Your task to perform on an android device: add a contact in the contacts app Image 0: 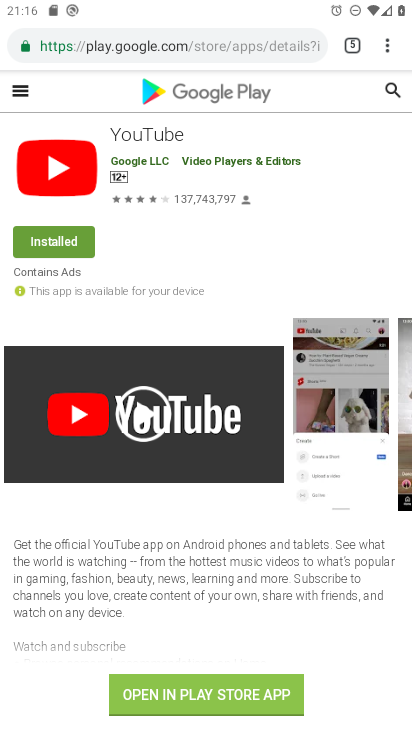
Step 0: press home button
Your task to perform on an android device: add a contact in the contacts app Image 1: 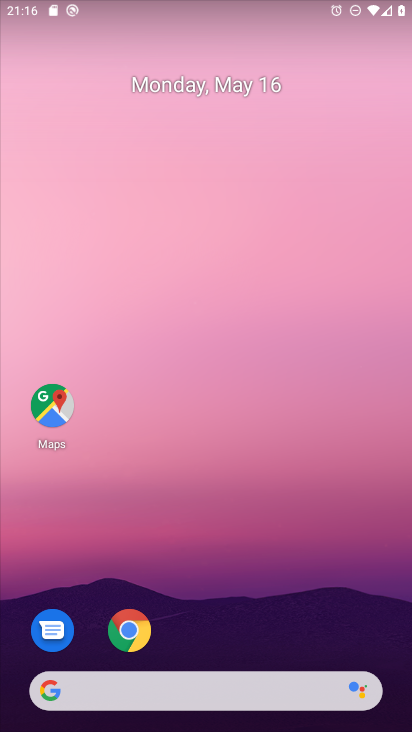
Step 1: drag from (251, 649) to (239, 13)
Your task to perform on an android device: add a contact in the contacts app Image 2: 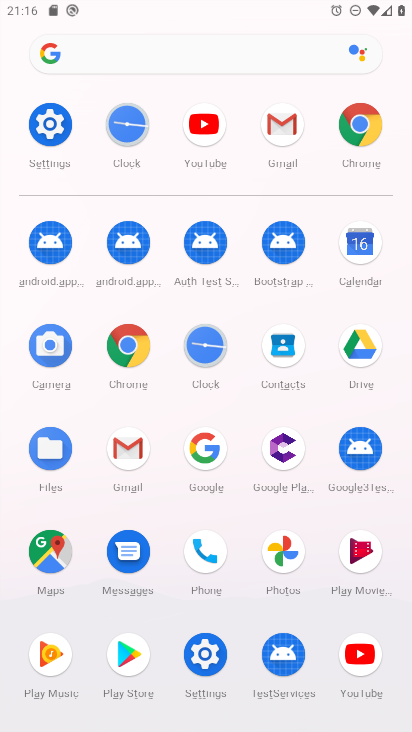
Step 2: click (287, 352)
Your task to perform on an android device: add a contact in the contacts app Image 3: 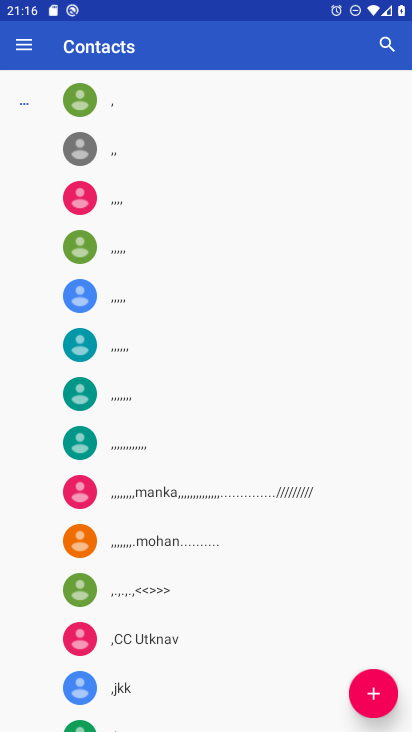
Step 3: click (366, 697)
Your task to perform on an android device: add a contact in the contacts app Image 4: 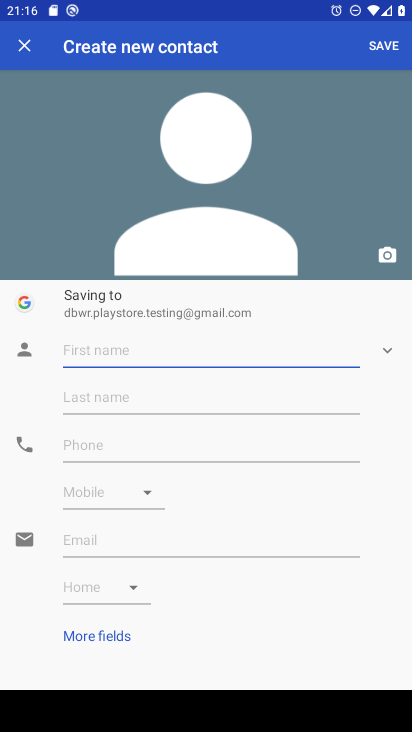
Step 4: type "hffjhg"
Your task to perform on an android device: add a contact in the contacts app Image 5: 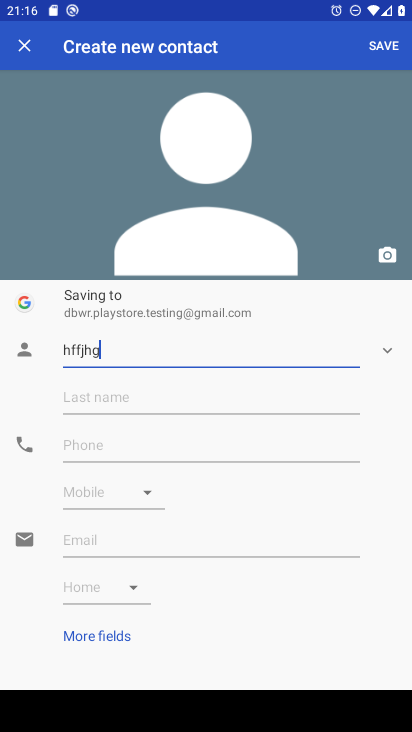
Step 5: click (122, 452)
Your task to perform on an android device: add a contact in the contacts app Image 6: 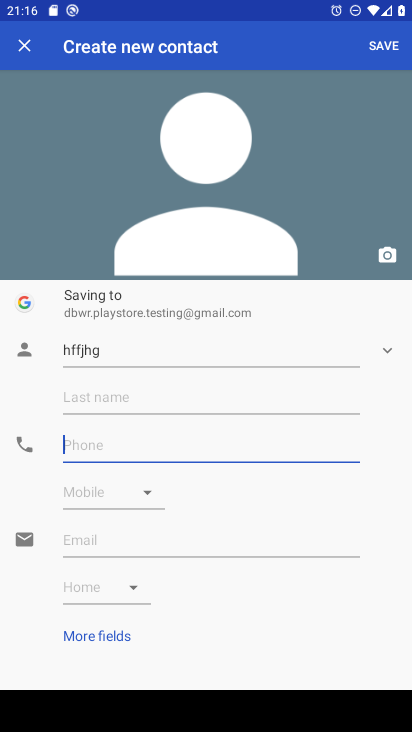
Step 6: type "567675468"
Your task to perform on an android device: add a contact in the contacts app Image 7: 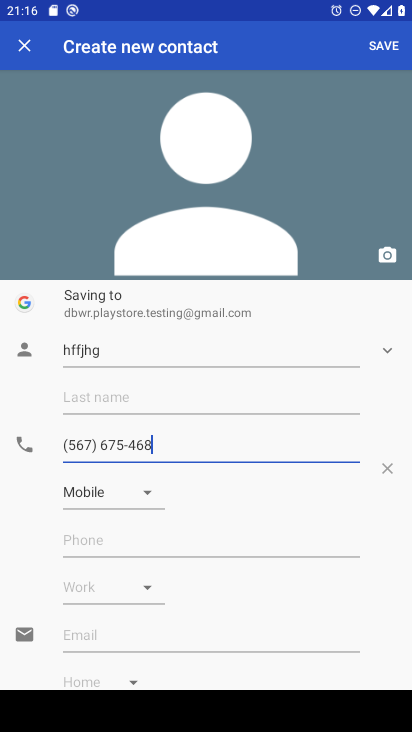
Step 7: click (381, 50)
Your task to perform on an android device: add a contact in the contacts app Image 8: 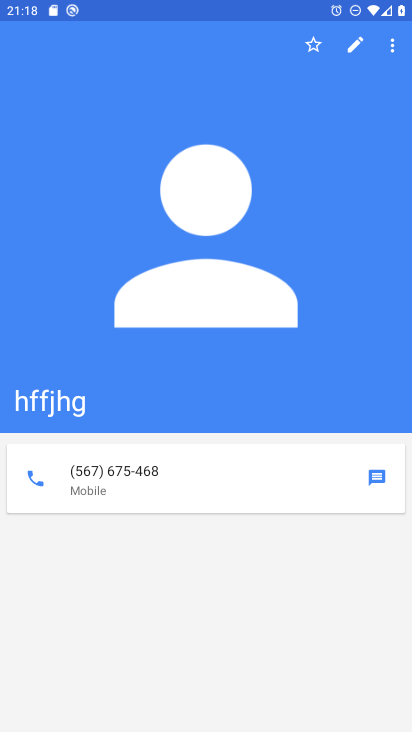
Step 8: task complete